Your task to perform on an android device: turn on showing notifications on the lock screen Image 0: 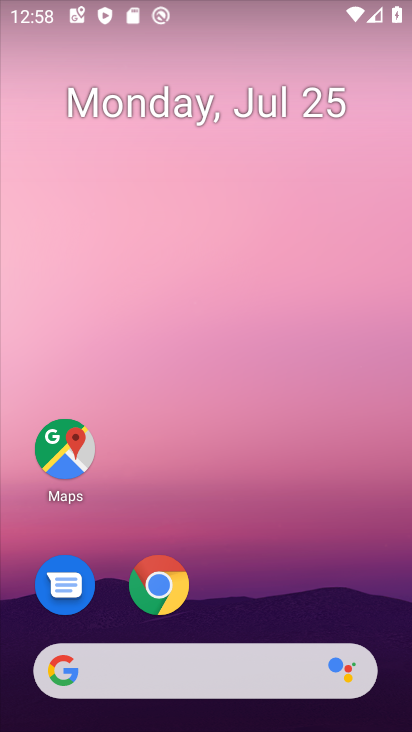
Step 0: drag from (284, 561) to (313, 10)
Your task to perform on an android device: turn on showing notifications on the lock screen Image 1: 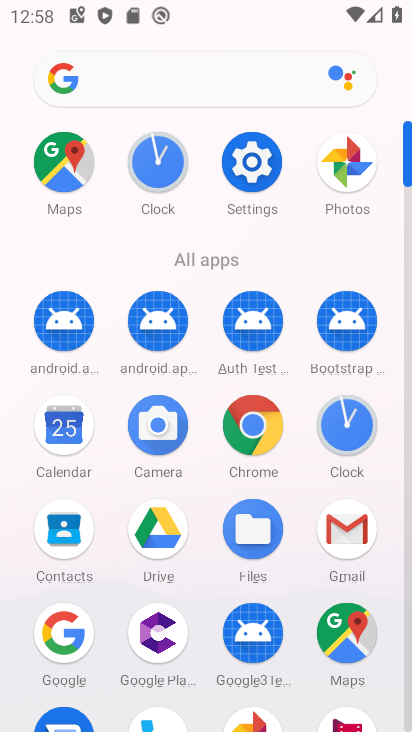
Step 1: click (251, 155)
Your task to perform on an android device: turn on showing notifications on the lock screen Image 2: 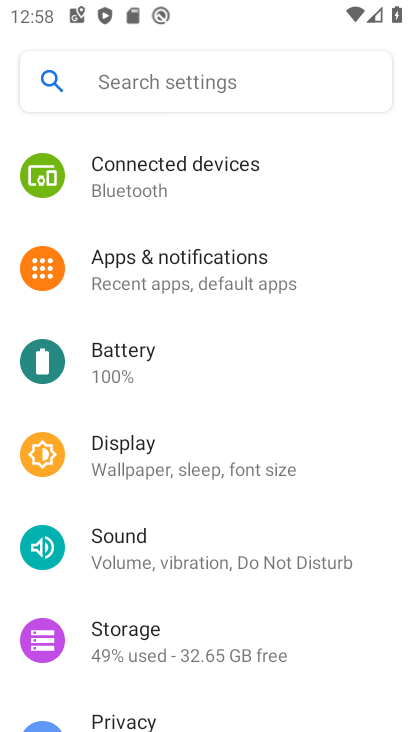
Step 2: click (245, 277)
Your task to perform on an android device: turn on showing notifications on the lock screen Image 3: 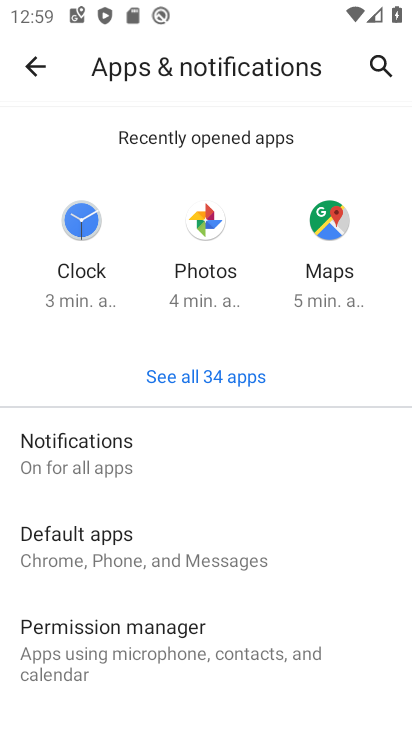
Step 3: click (111, 451)
Your task to perform on an android device: turn on showing notifications on the lock screen Image 4: 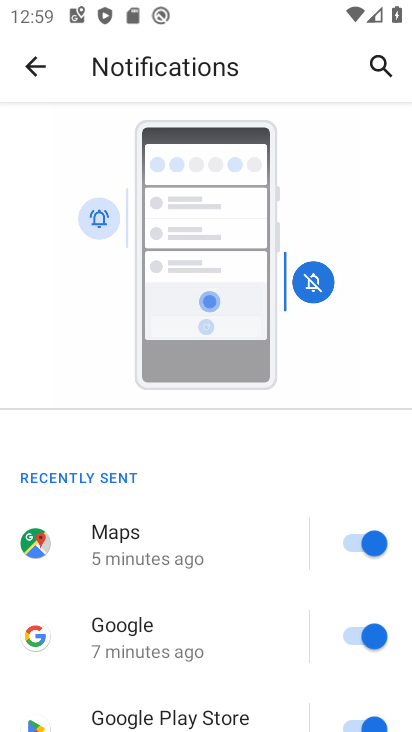
Step 4: drag from (201, 634) to (270, 180)
Your task to perform on an android device: turn on showing notifications on the lock screen Image 5: 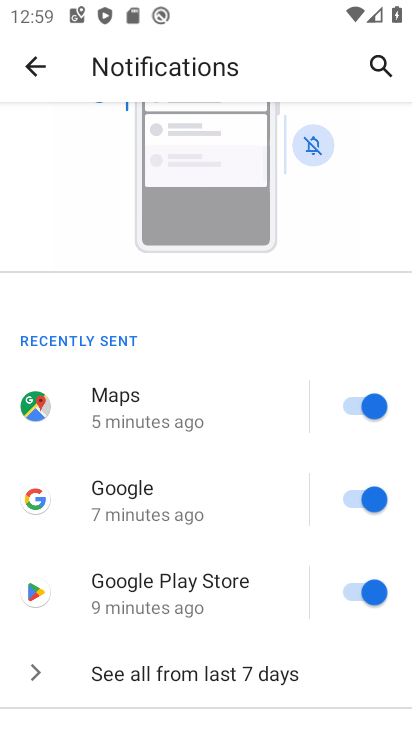
Step 5: drag from (238, 527) to (235, 152)
Your task to perform on an android device: turn on showing notifications on the lock screen Image 6: 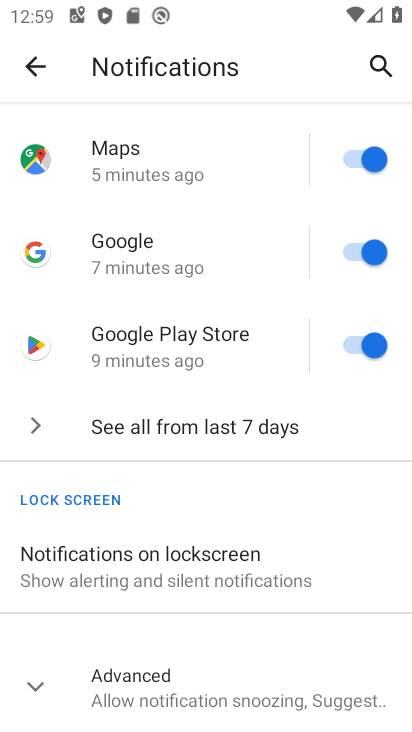
Step 6: click (193, 562)
Your task to perform on an android device: turn on showing notifications on the lock screen Image 7: 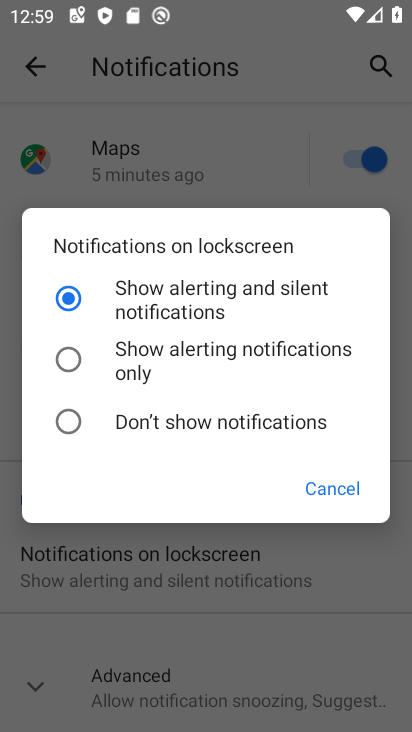
Step 7: click (72, 296)
Your task to perform on an android device: turn on showing notifications on the lock screen Image 8: 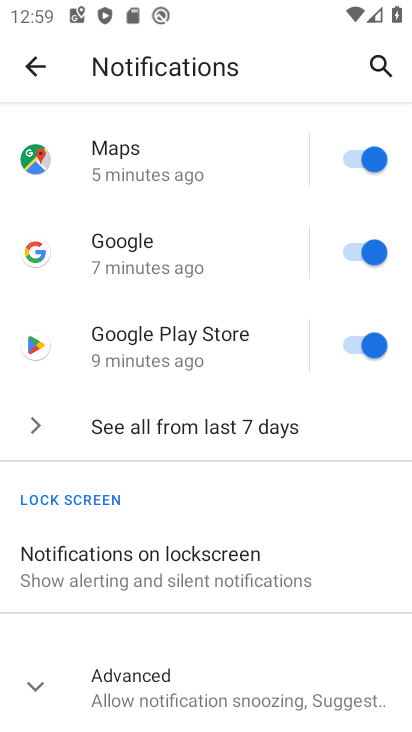
Step 8: task complete